Your task to perform on an android device: Open the stopwatch Image 0: 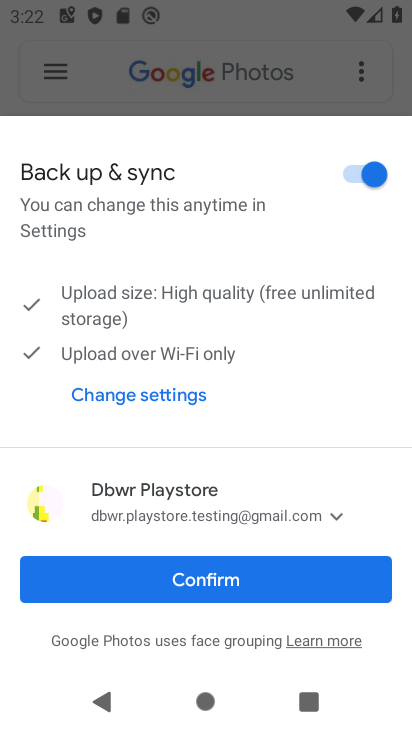
Step 0: press home button
Your task to perform on an android device: Open the stopwatch Image 1: 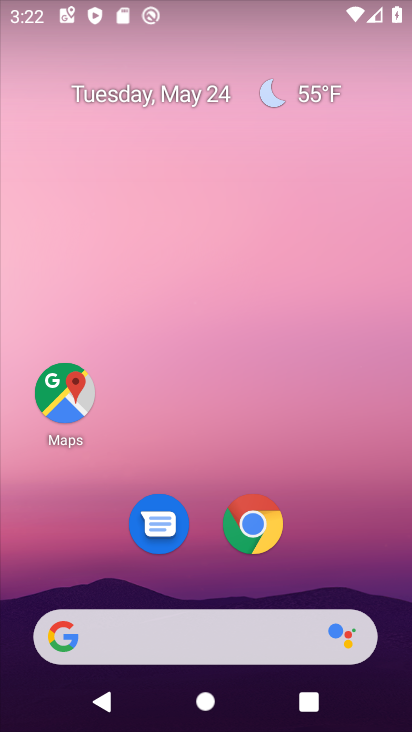
Step 1: drag from (283, 450) to (282, 26)
Your task to perform on an android device: Open the stopwatch Image 2: 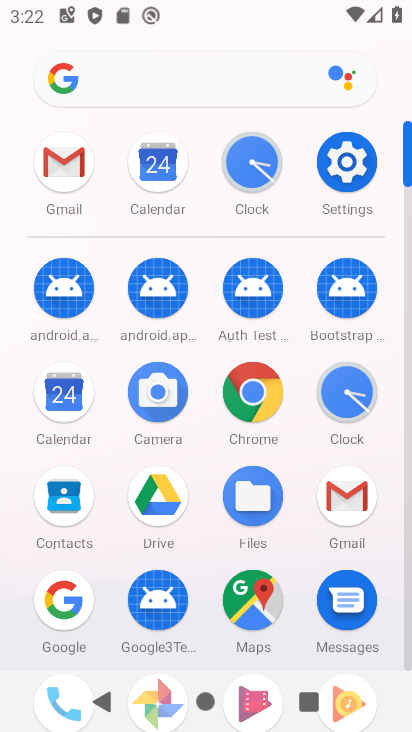
Step 2: click (259, 159)
Your task to perform on an android device: Open the stopwatch Image 3: 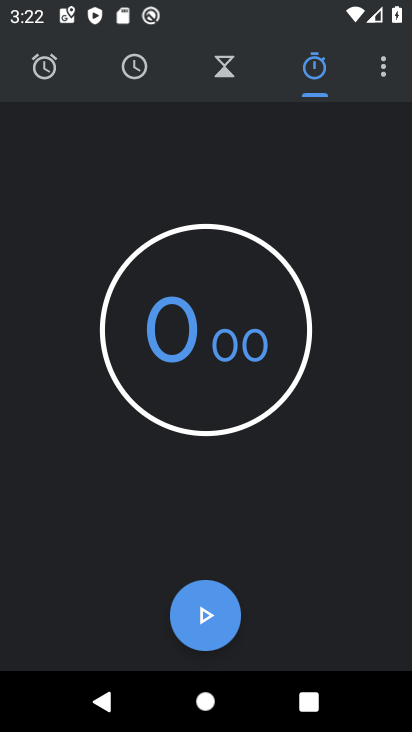
Step 3: click (313, 78)
Your task to perform on an android device: Open the stopwatch Image 4: 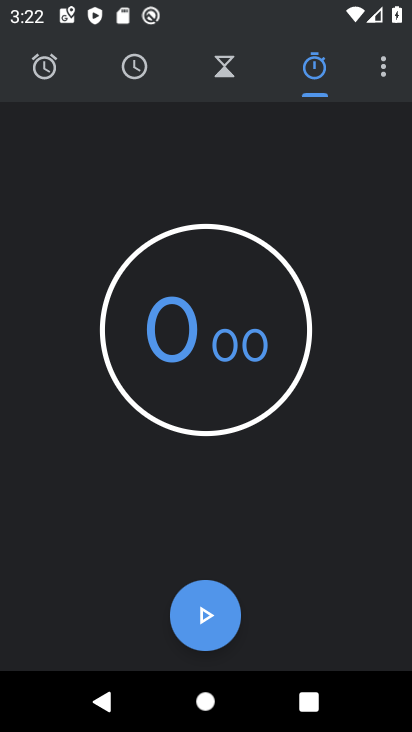
Step 4: task complete